Your task to perform on an android device: Open Amazon Image 0: 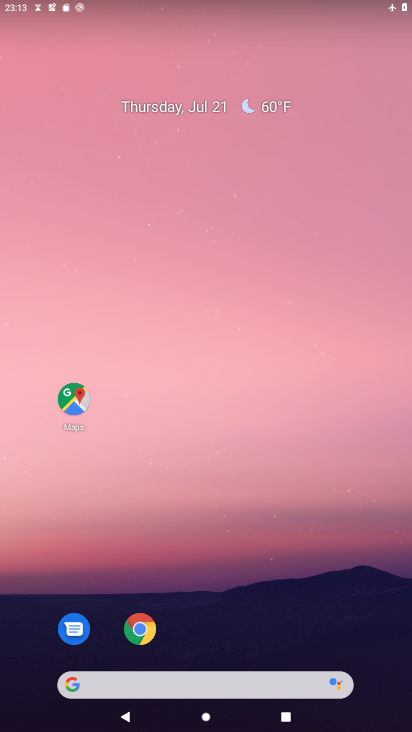
Step 0: click (146, 633)
Your task to perform on an android device: Open Amazon Image 1: 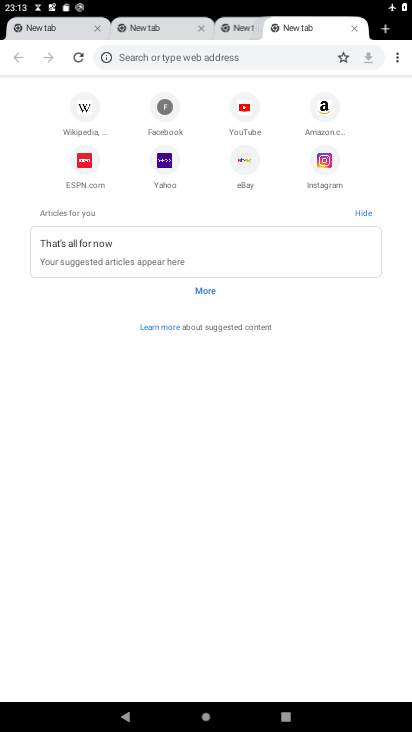
Step 1: click (319, 111)
Your task to perform on an android device: Open Amazon Image 2: 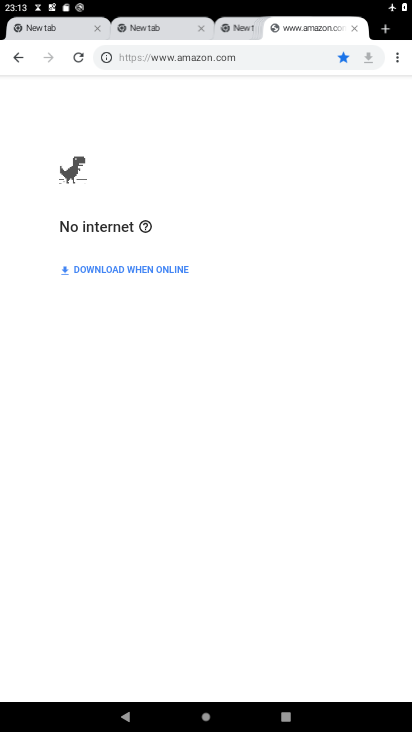
Step 2: task complete